Your task to perform on an android device: Show me popular games on the Play Store Image 0: 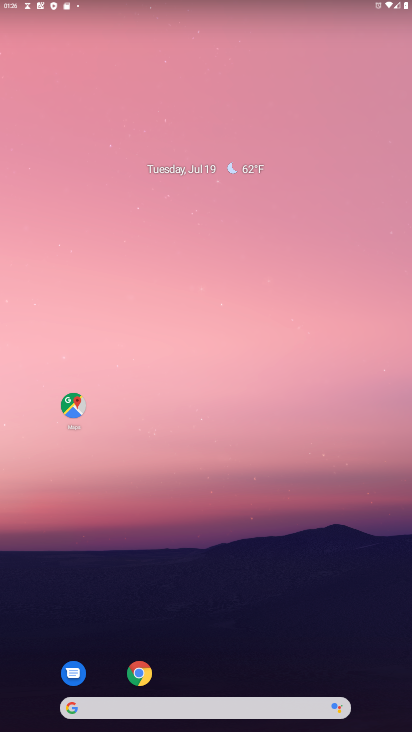
Step 0: drag from (182, 644) to (196, 123)
Your task to perform on an android device: Show me popular games on the Play Store Image 1: 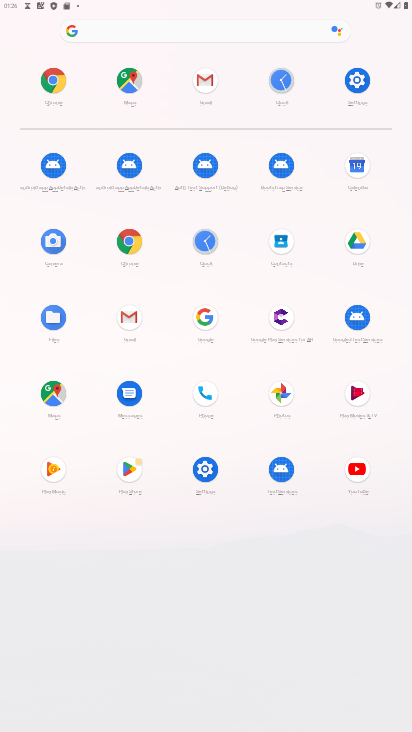
Step 1: click (115, 468)
Your task to perform on an android device: Show me popular games on the Play Store Image 2: 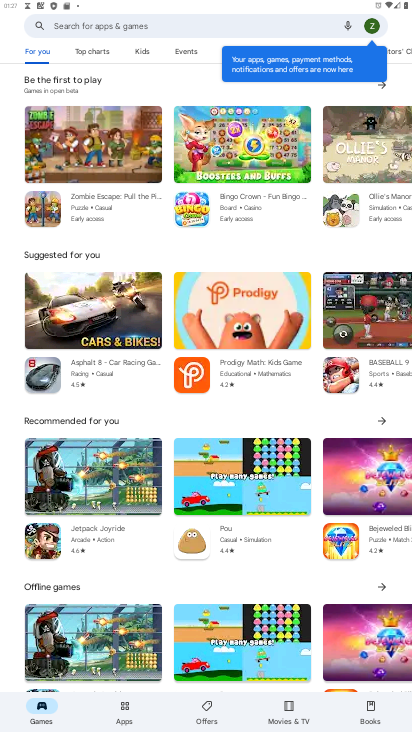
Step 2: task complete